Your task to perform on an android device: turn notification dots on Image 0: 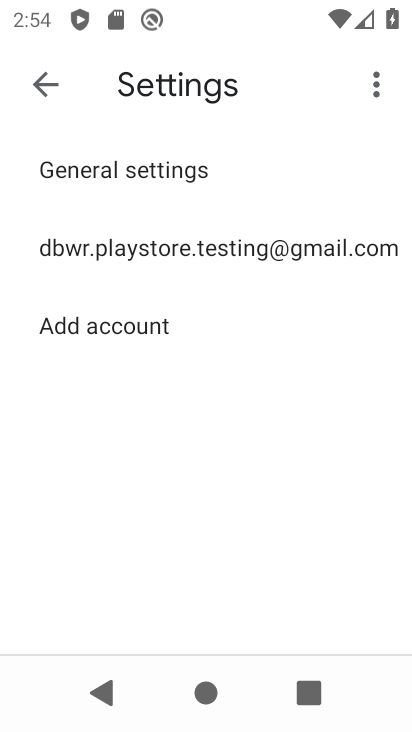
Step 0: press home button
Your task to perform on an android device: turn notification dots on Image 1: 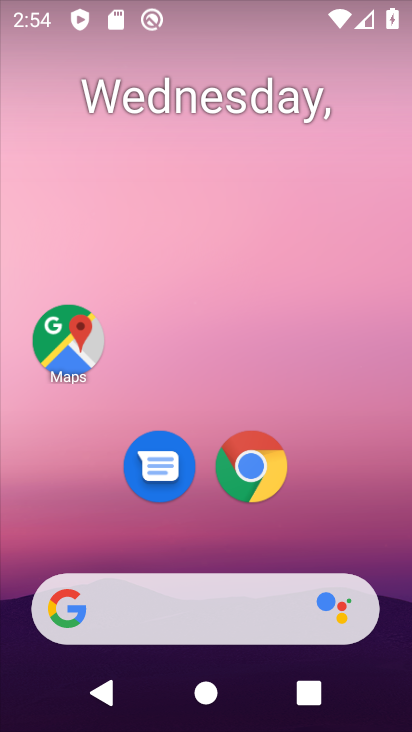
Step 1: drag from (223, 556) to (362, 20)
Your task to perform on an android device: turn notification dots on Image 2: 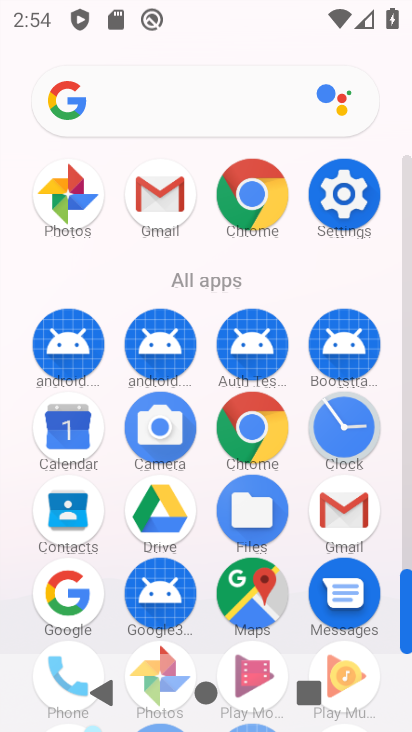
Step 2: click (343, 212)
Your task to perform on an android device: turn notification dots on Image 3: 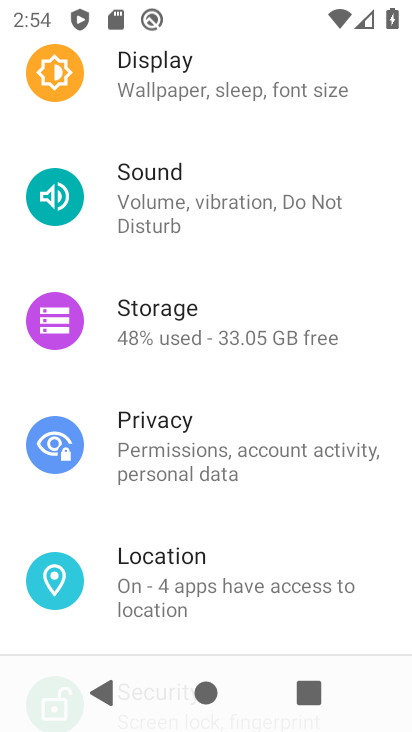
Step 3: drag from (259, 494) to (187, 12)
Your task to perform on an android device: turn notification dots on Image 4: 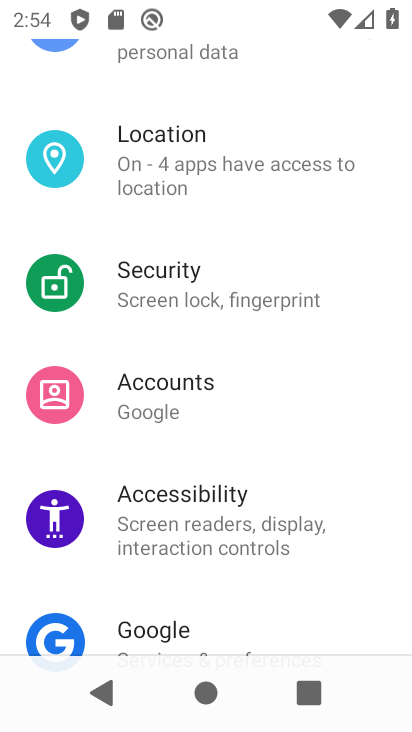
Step 4: drag from (211, 187) to (191, 717)
Your task to perform on an android device: turn notification dots on Image 5: 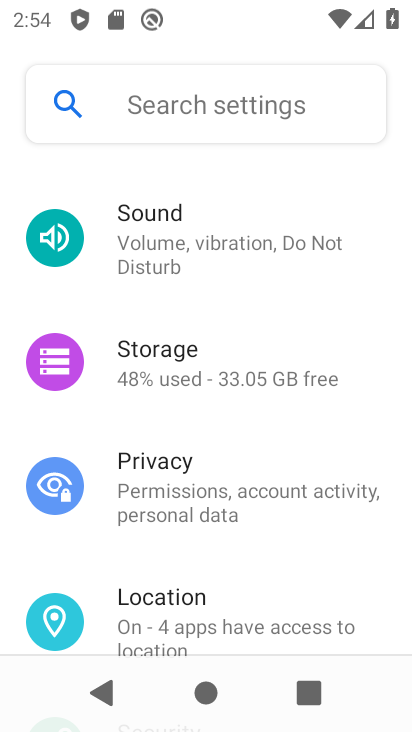
Step 5: drag from (216, 257) to (190, 572)
Your task to perform on an android device: turn notification dots on Image 6: 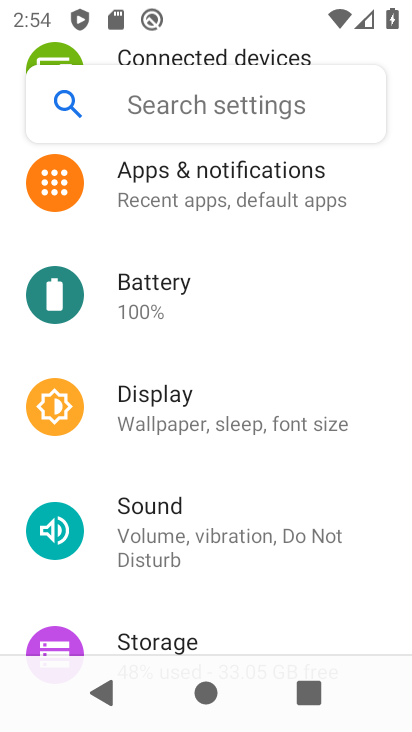
Step 6: click (211, 215)
Your task to perform on an android device: turn notification dots on Image 7: 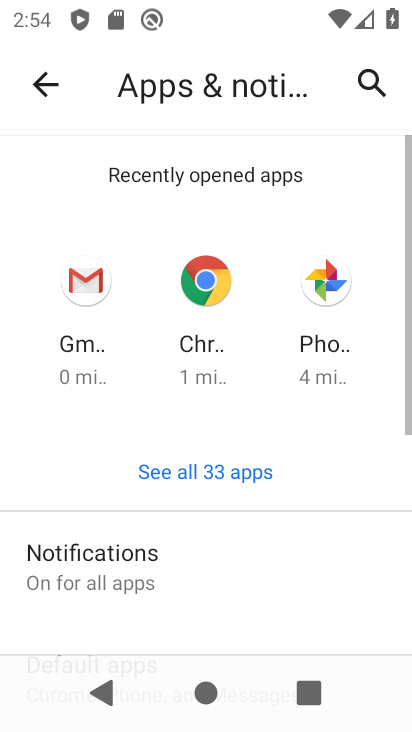
Step 7: click (144, 563)
Your task to perform on an android device: turn notification dots on Image 8: 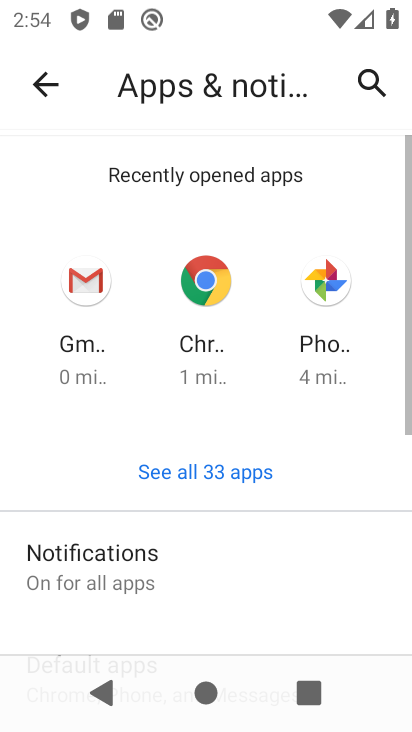
Step 8: task complete